Your task to perform on an android device: Show me productivity apps on the Play Store Image 0: 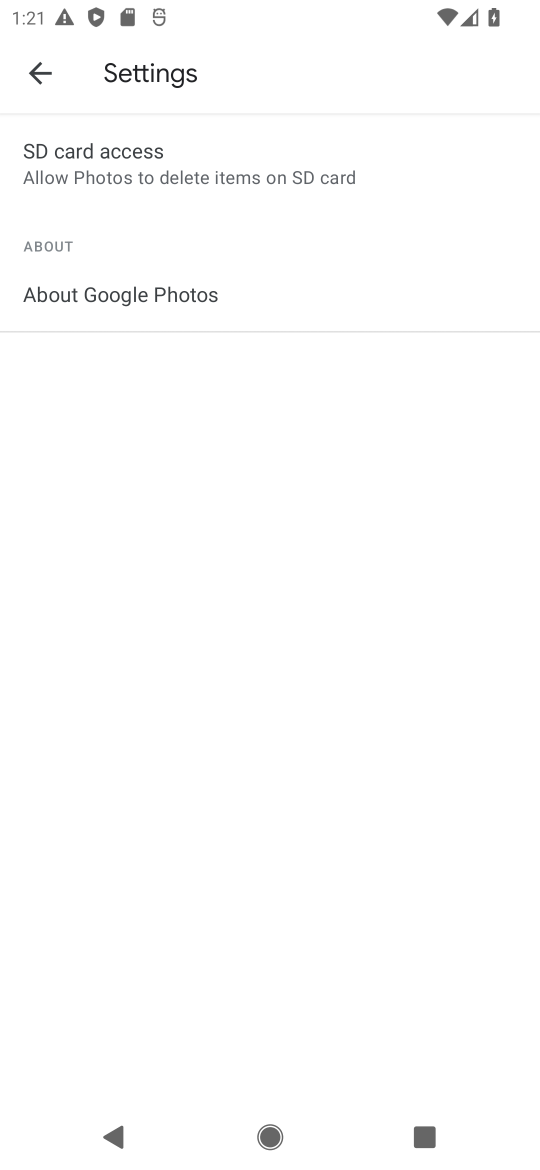
Step 0: press back button
Your task to perform on an android device: Show me productivity apps on the Play Store Image 1: 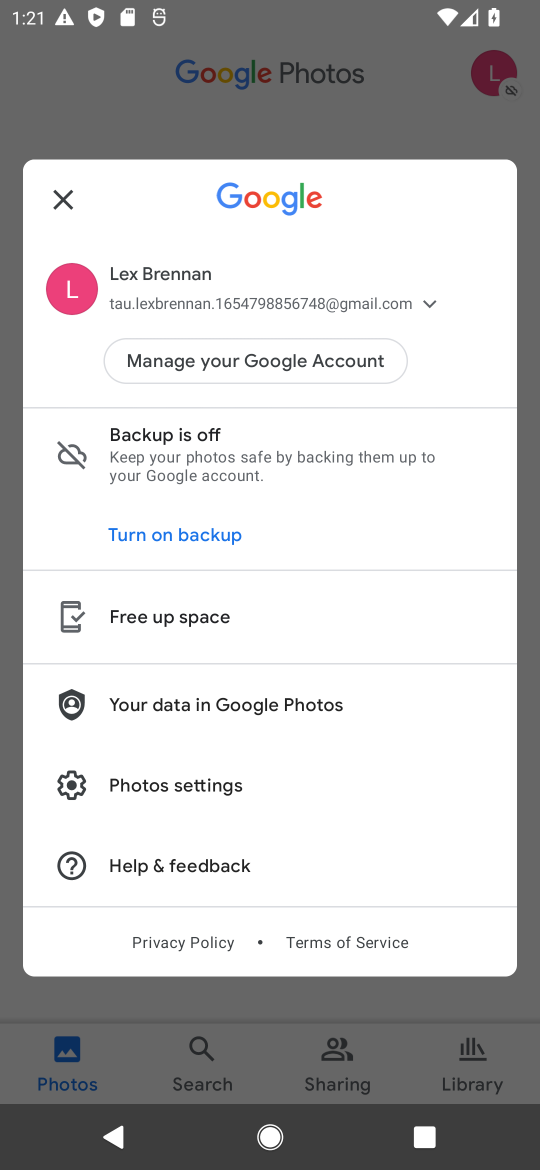
Step 1: press back button
Your task to perform on an android device: Show me productivity apps on the Play Store Image 2: 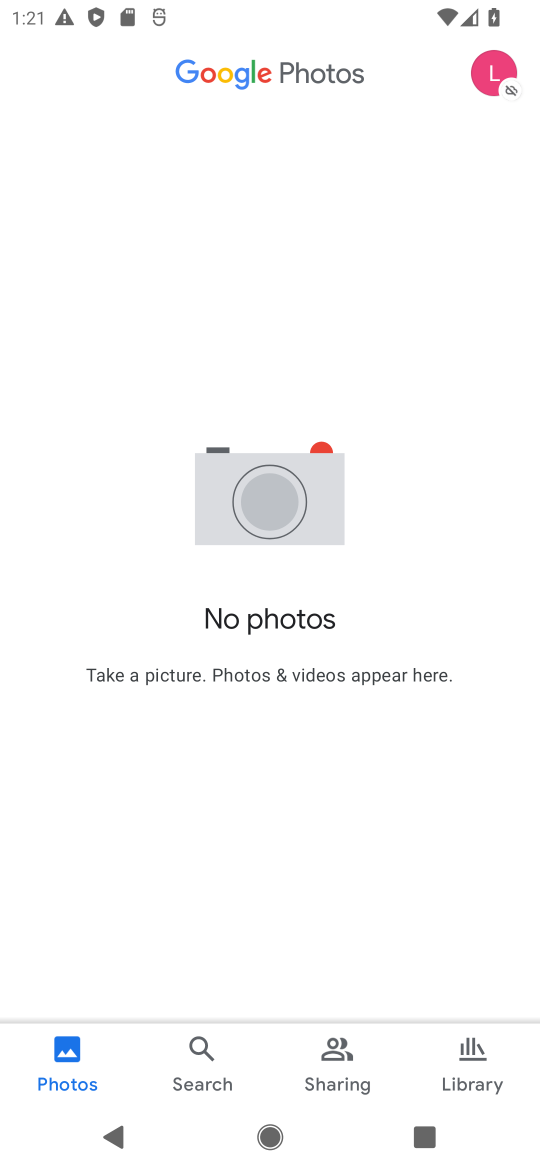
Step 2: press home button
Your task to perform on an android device: Show me productivity apps on the Play Store Image 3: 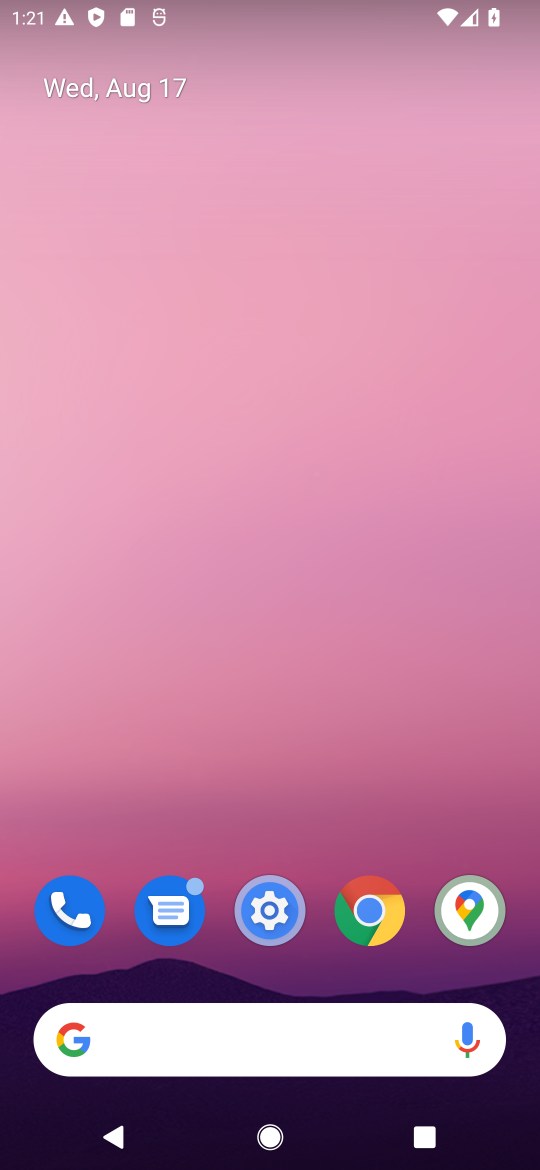
Step 3: drag from (319, 963) to (416, 0)
Your task to perform on an android device: Show me productivity apps on the Play Store Image 4: 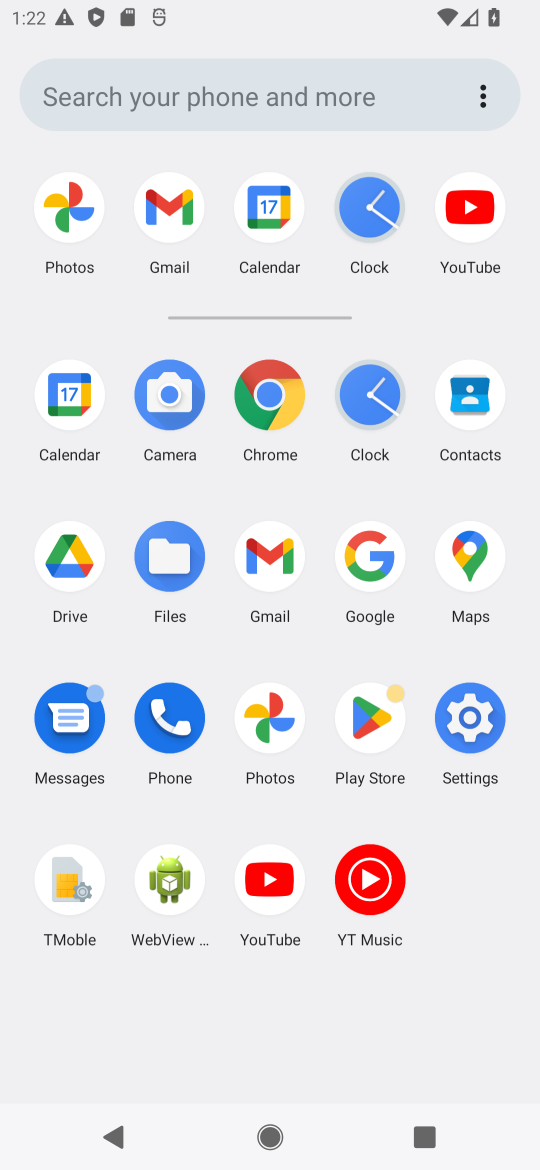
Step 4: click (364, 706)
Your task to perform on an android device: Show me productivity apps on the Play Store Image 5: 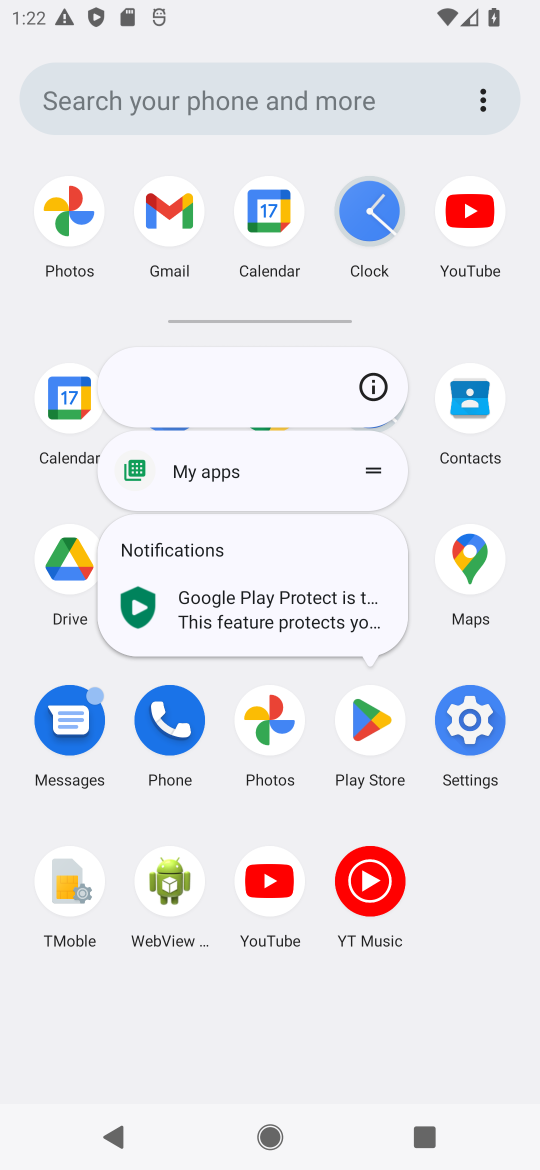
Step 5: click (367, 716)
Your task to perform on an android device: Show me productivity apps on the Play Store Image 6: 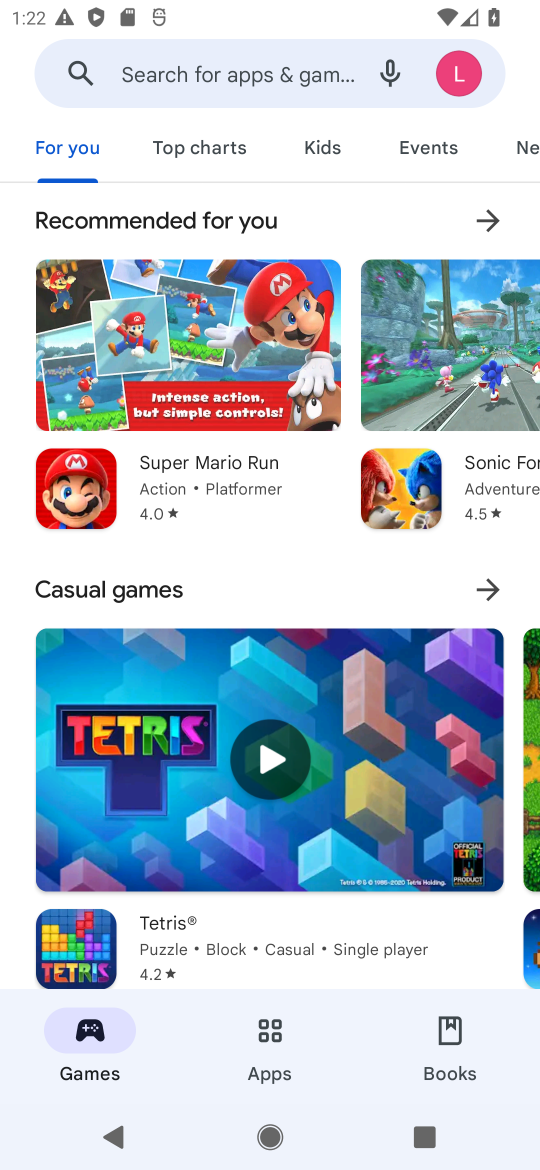
Step 6: click (282, 1047)
Your task to perform on an android device: Show me productivity apps on the Play Store Image 7: 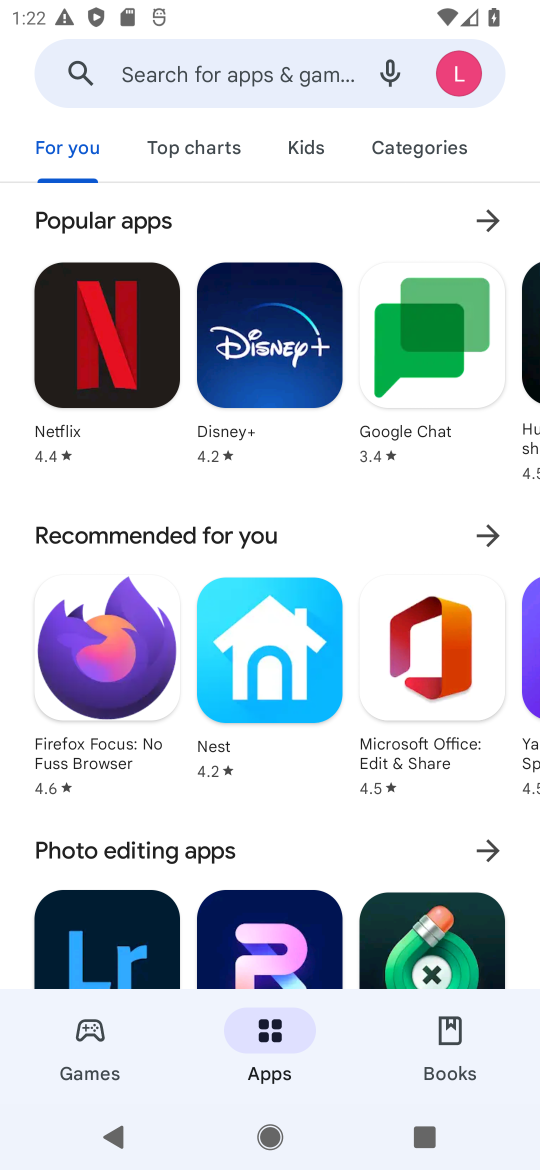
Step 7: drag from (10, 890) to (57, 203)
Your task to perform on an android device: Show me productivity apps on the Play Store Image 8: 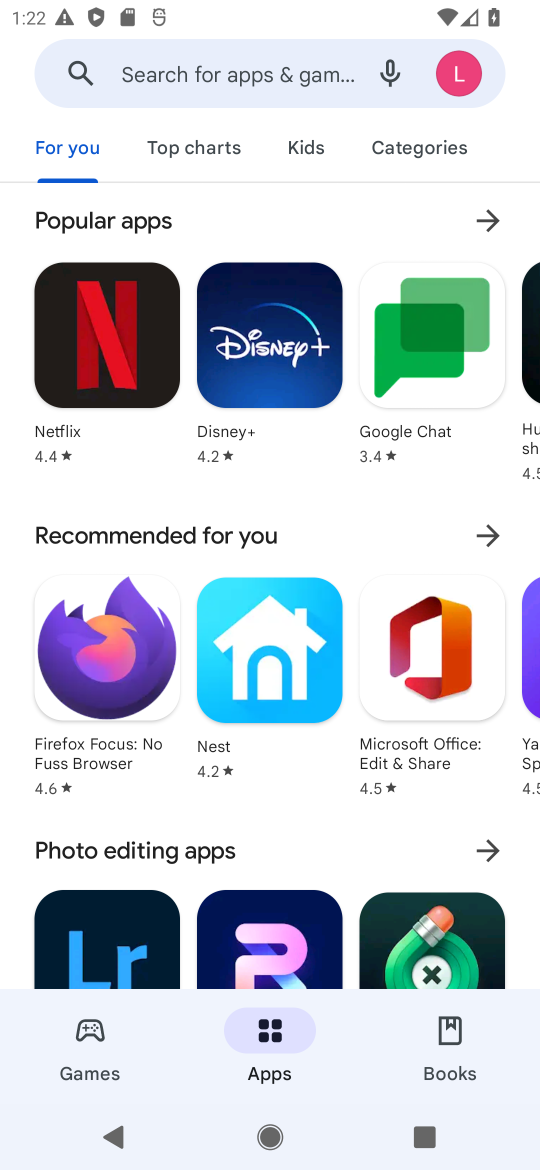
Step 8: drag from (19, 974) to (35, 249)
Your task to perform on an android device: Show me productivity apps on the Play Store Image 9: 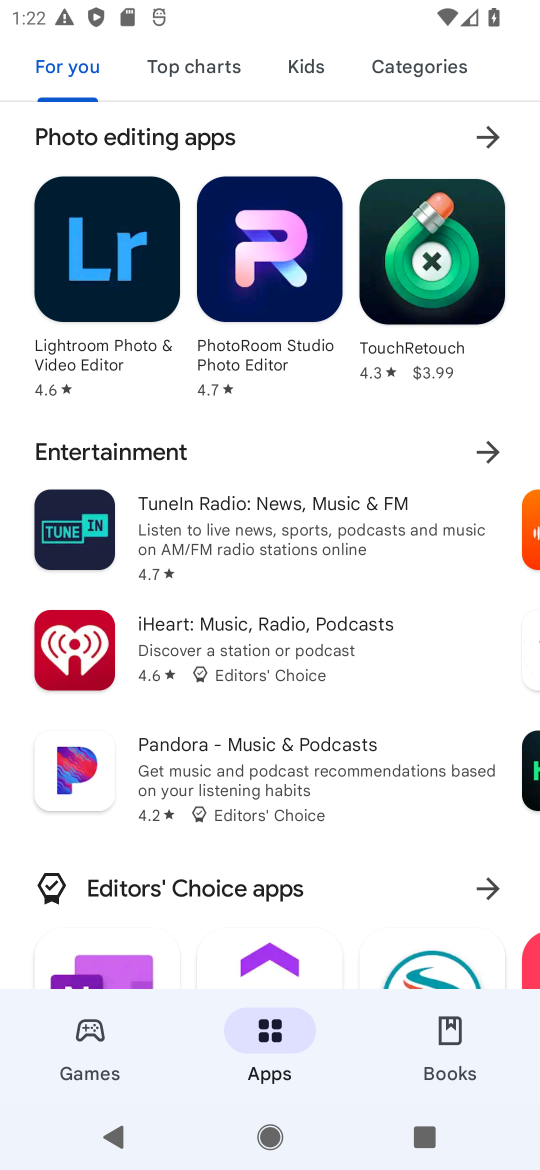
Step 9: drag from (23, 960) to (34, 87)
Your task to perform on an android device: Show me productivity apps on the Play Store Image 10: 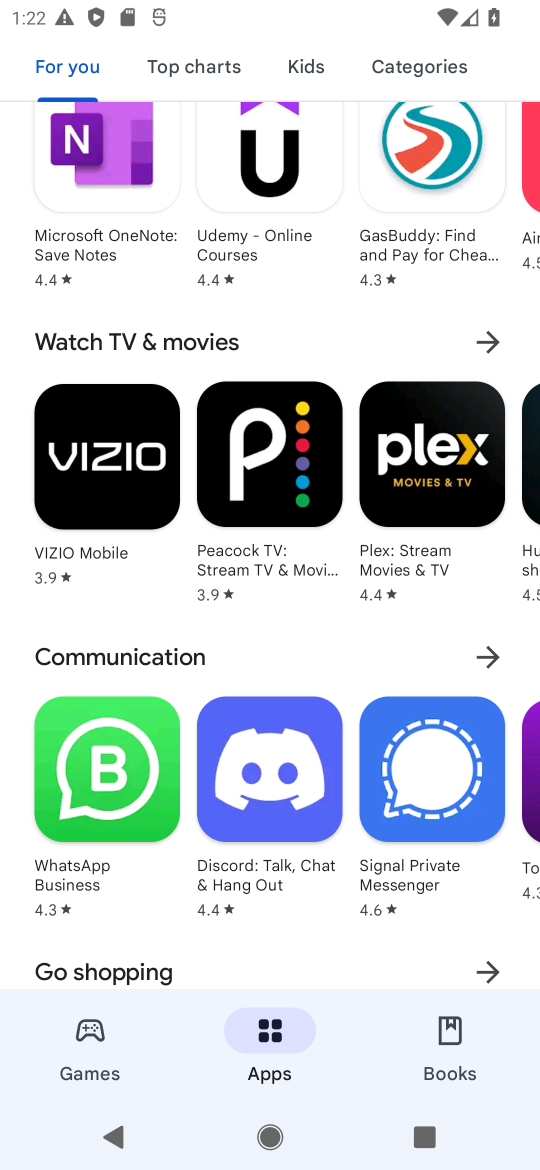
Step 10: drag from (14, 978) to (36, 246)
Your task to perform on an android device: Show me productivity apps on the Play Store Image 11: 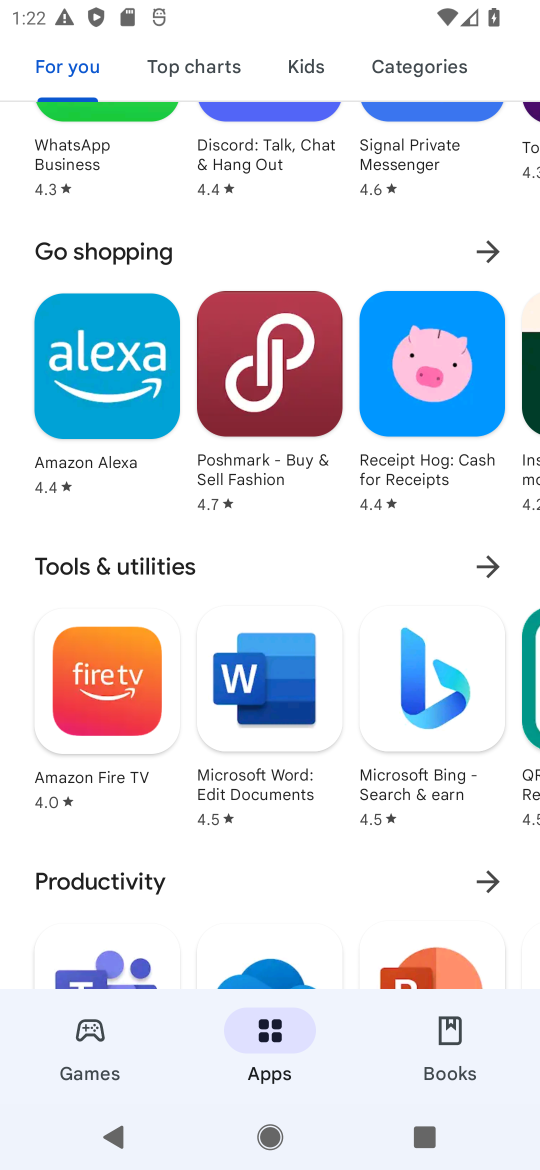
Step 11: drag from (17, 915) to (24, 555)
Your task to perform on an android device: Show me productivity apps on the Play Store Image 12: 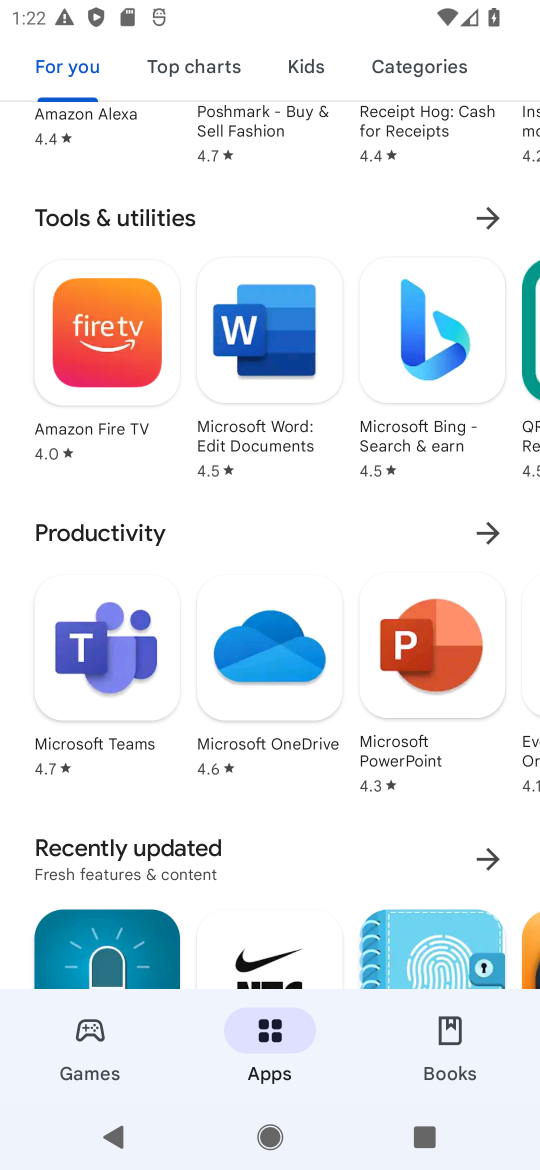
Step 12: click (504, 531)
Your task to perform on an android device: Show me productivity apps on the Play Store Image 13: 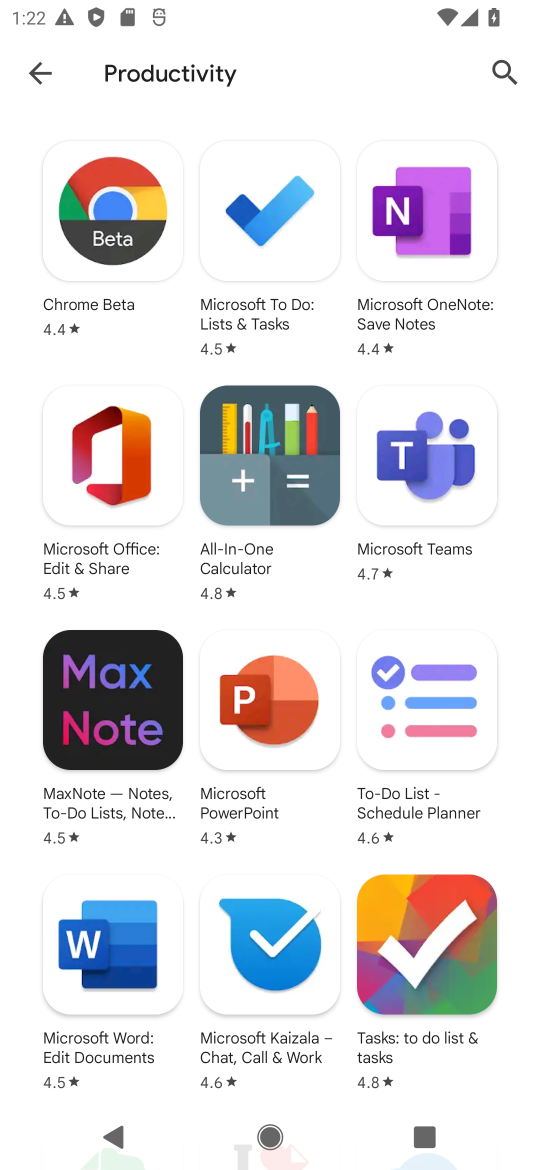
Step 13: task complete